Your task to perform on an android device: Turn on the flashlight Image 0: 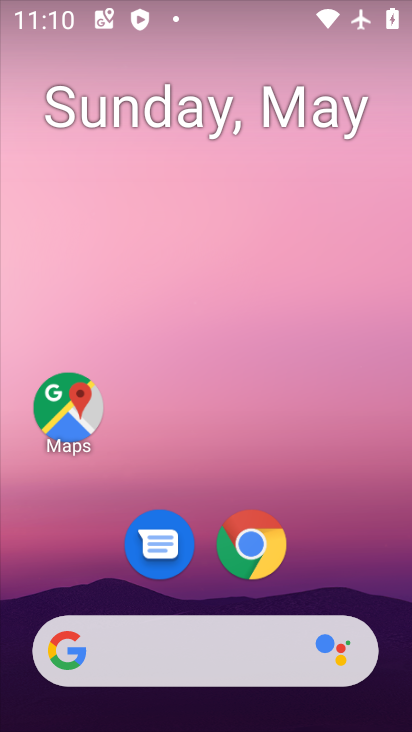
Step 0: drag from (337, 585) to (299, 301)
Your task to perform on an android device: Turn on the flashlight Image 1: 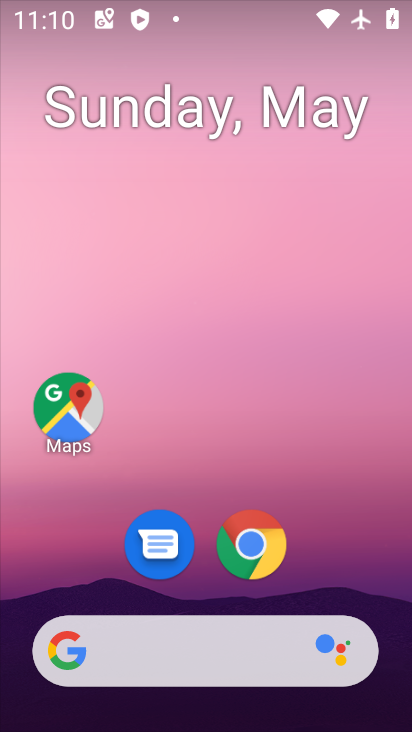
Step 1: drag from (315, 576) to (339, 256)
Your task to perform on an android device: Turn on the flashlight Image 2: 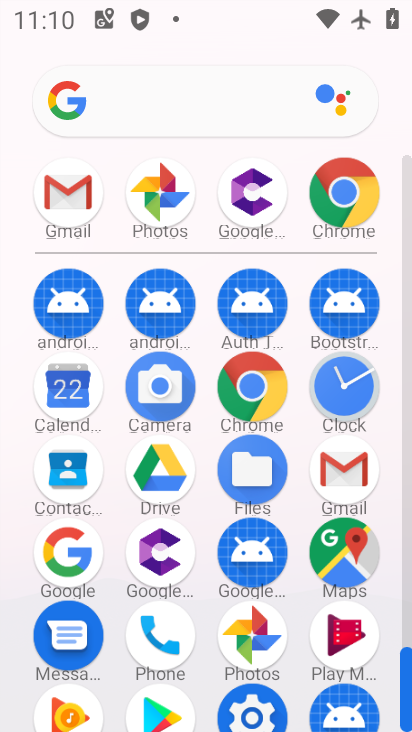
Step 2: drag from (297, 561) to (322, 294)
Your task to perform on an android device: Turn on the flashlight Image 3: 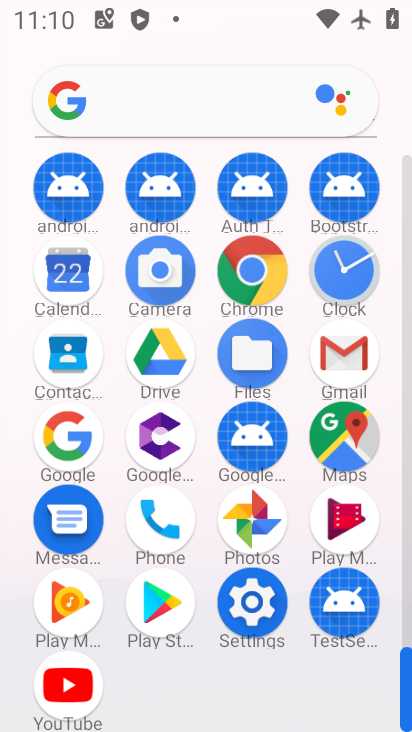
Step 3: click (253, 602)
Your task to perform on an android device: Turn on the flashlight Image 4: 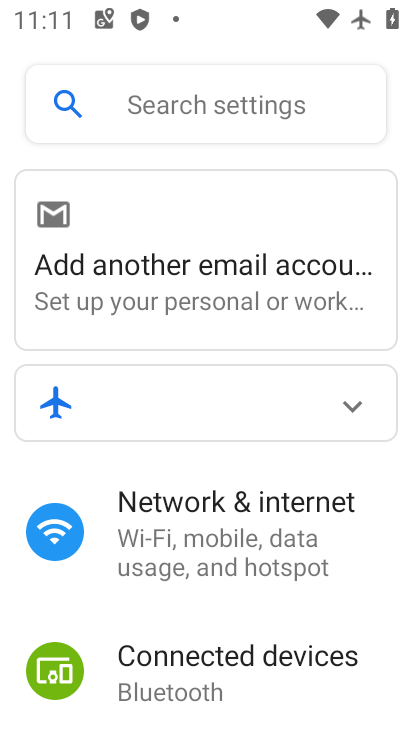
Step 4: task complete